Your task to perform on an android device: Go to eBay Image 0: 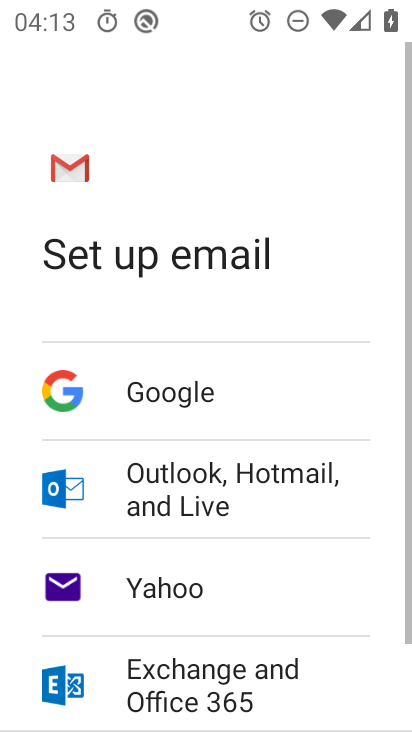
Step 0: press home button
Your task to perform on an android device: Go to eBay Image 1: 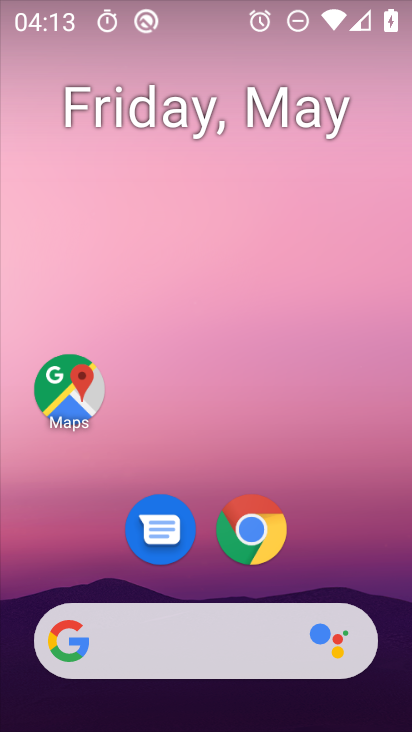
Step 1: click (234, 522)
Your task to perform on an android device: Go to eBay Image 2: 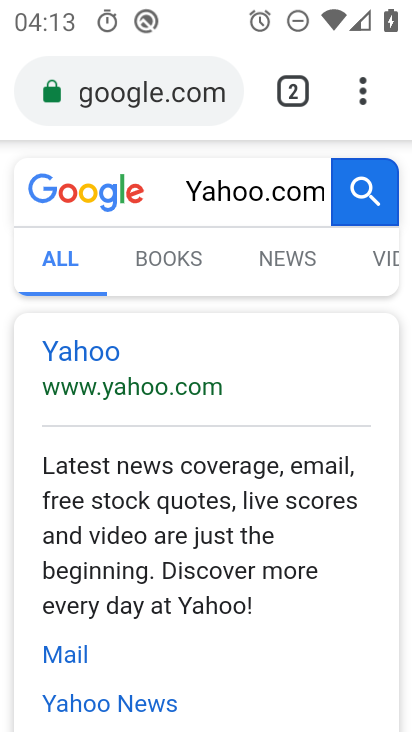
Step 2: click (226, 92)
Your task to perform on an android device: Go to eBay Image 3: 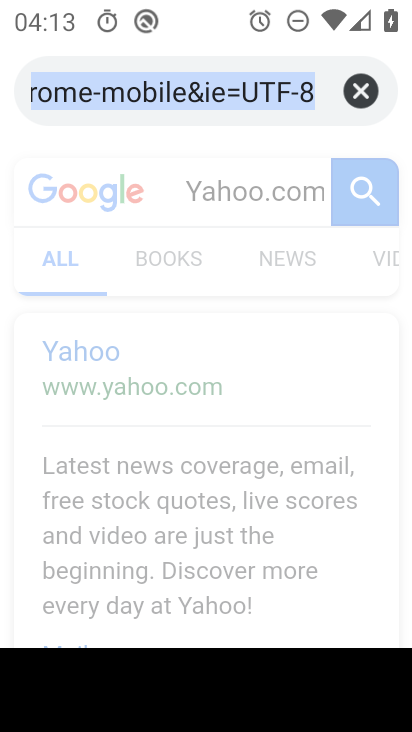
Step 3: click (267, 89)
Your task to perform on an android device: Go to eBay Image 4: 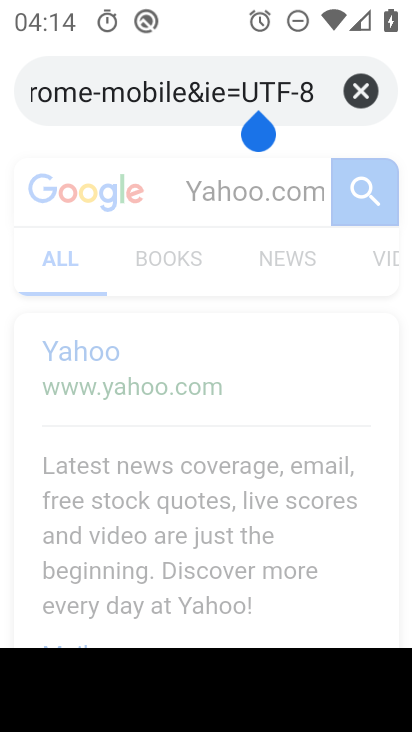
Step 4: click (312, 89)
Your task to perform on an android device: Go to eBay Image 5: 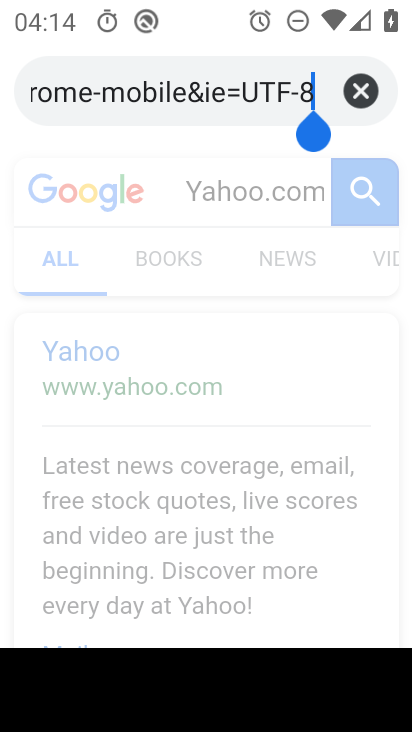
Step 5: click (361, 97)
Your task to perform on an android device: Go to eBay Image 6: 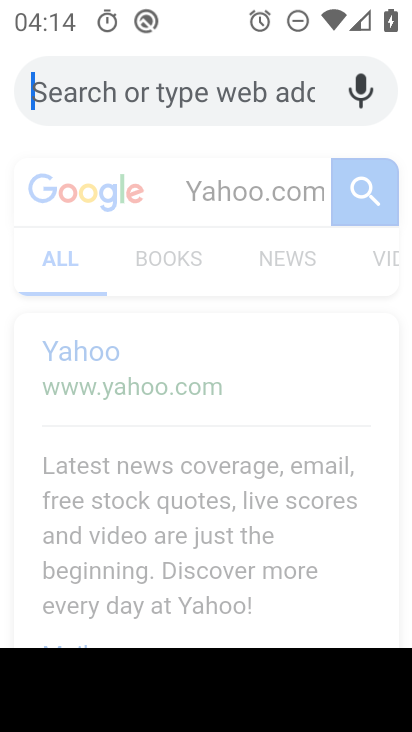
Step 6: type "eBay"
Your task to perform on an android device: Go to eBay Image 7: 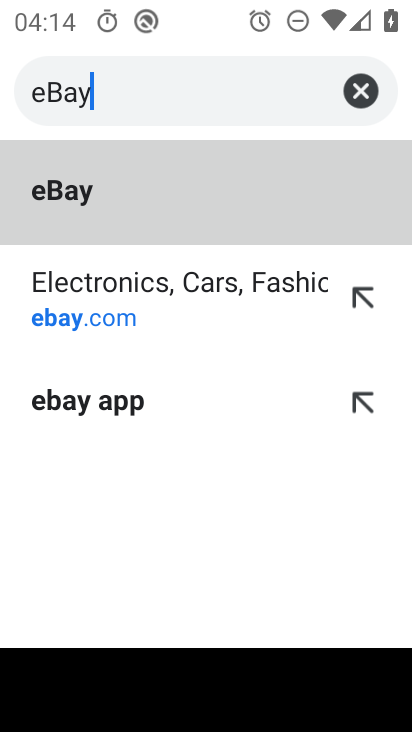
Step 7: click (58, 189)
Your task to perform on an android device: Go to eBay Image 8: 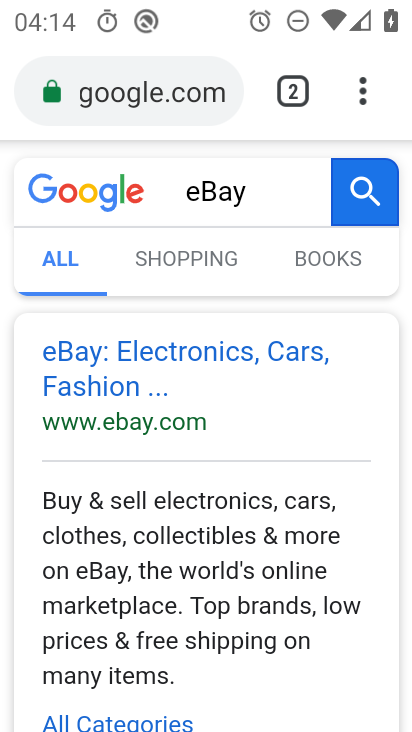
Step 8: task complete